Your task to perform on an android device: turn on sleep mode Image 0: 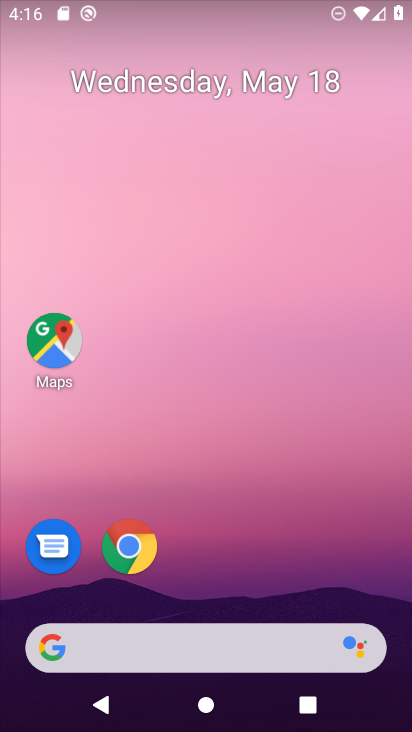
Step 0: drag from (218, 566) to (272, 60)
Your task to perform on an android device: turn on sleep mode Image 1: 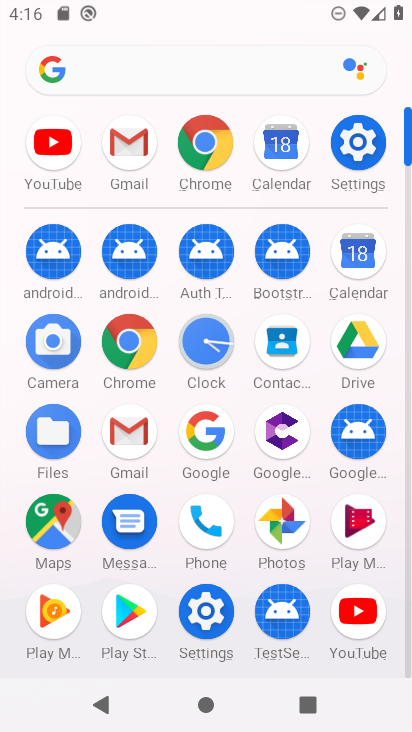
Step 1: click (353, 173)
Your task to perform on an android device: turn on sleep mode Image 2: 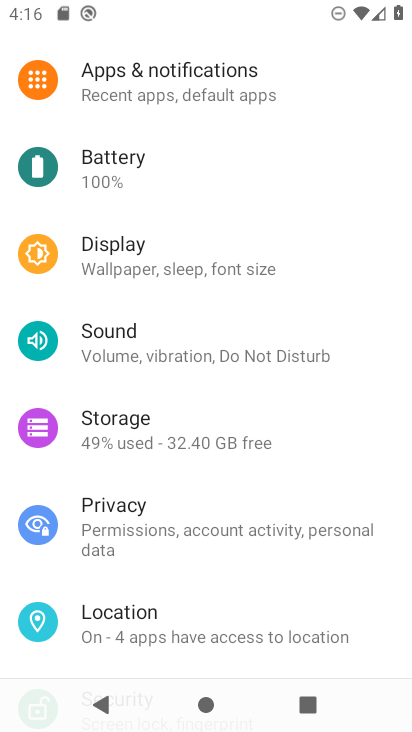
Step 2: drag from (219, 123) to (209, 307)
Your task to perform on an android device: turn on sleep mode Image 3: 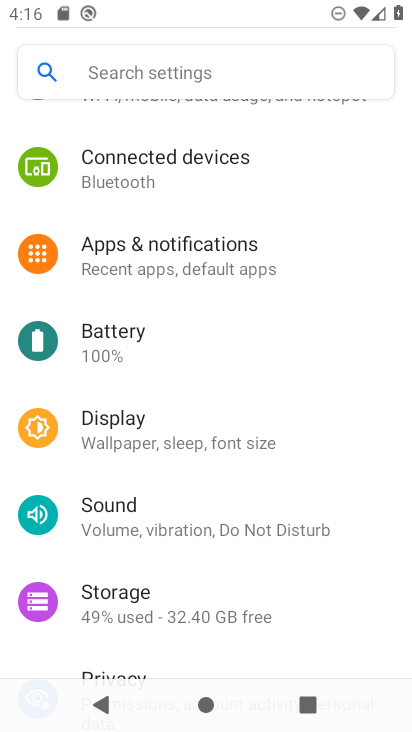
Step 3: click (216, 86)
Your task to perform on an android device: turn on sleep mode Image 4: 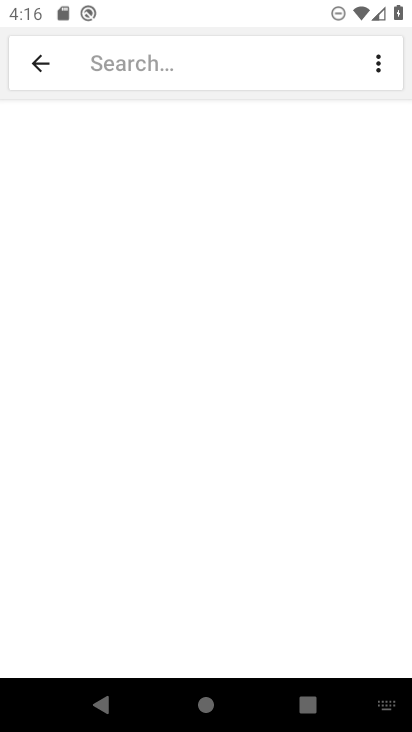
Step 4: type "sleep mode"
Your task to perform on an android device: turn on sleep mode Image 5: 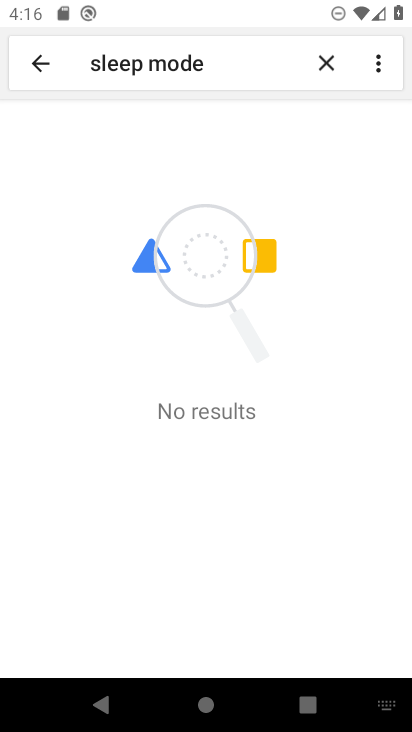
Step 5: task complete